Your task to perform on an android device: Go to Reddit.com Image 0: 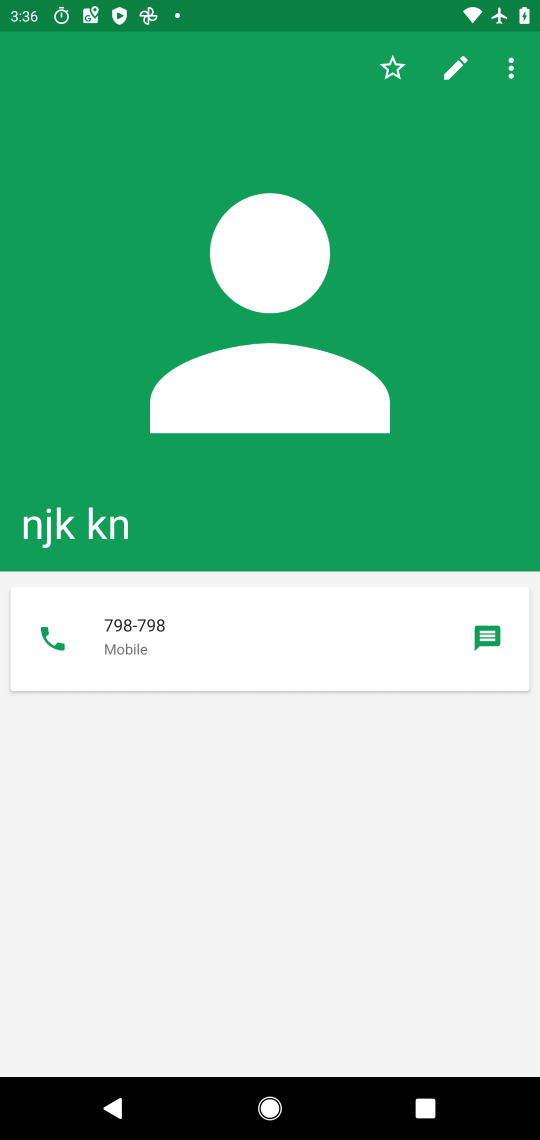
Step 0: press home button
Your task to perform on an android device: Go to Reddit.com Image 1: 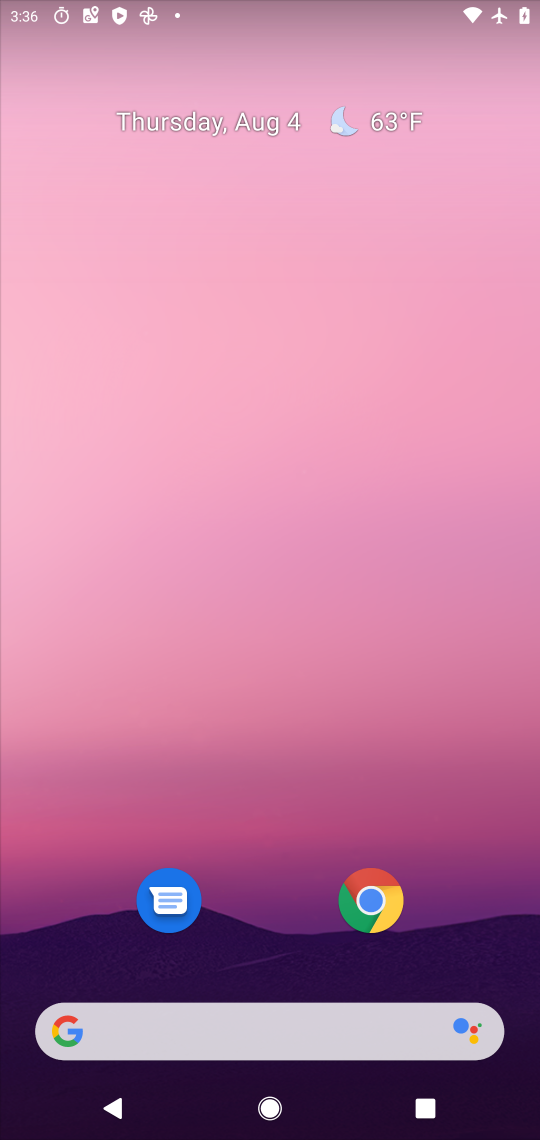
Step 1: click (375, 900)
Your task to perform on an android device: Go to Reddit.com Image 2: 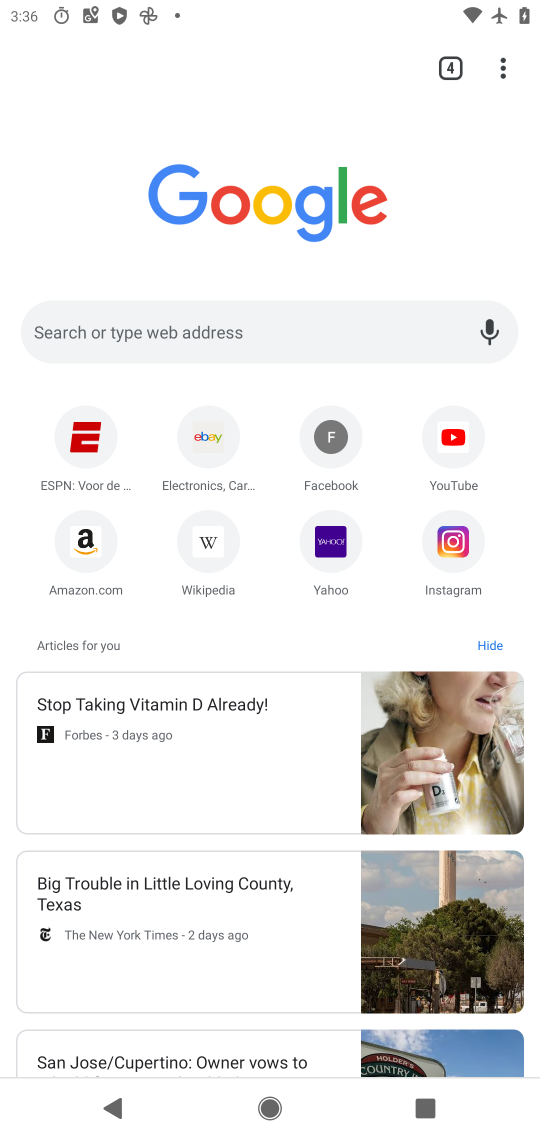
Step 2: click (291, 333)
Your task to perform on an android device: Go to Reddit.com Image 3: 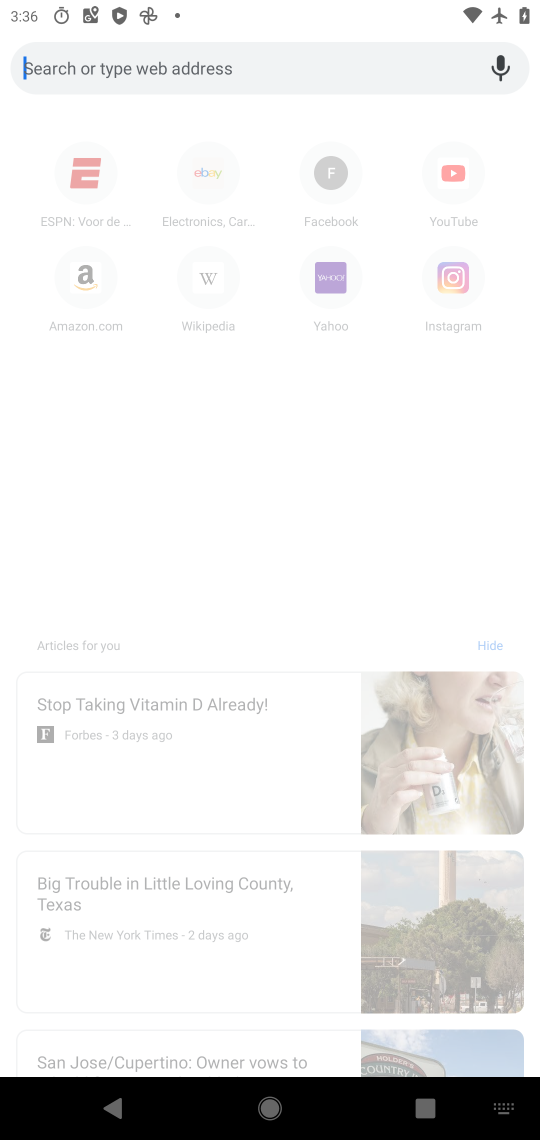
Step 3: type "Reddit.com"
Your task to perform on an android device: Go to Reddit.com Image 4: 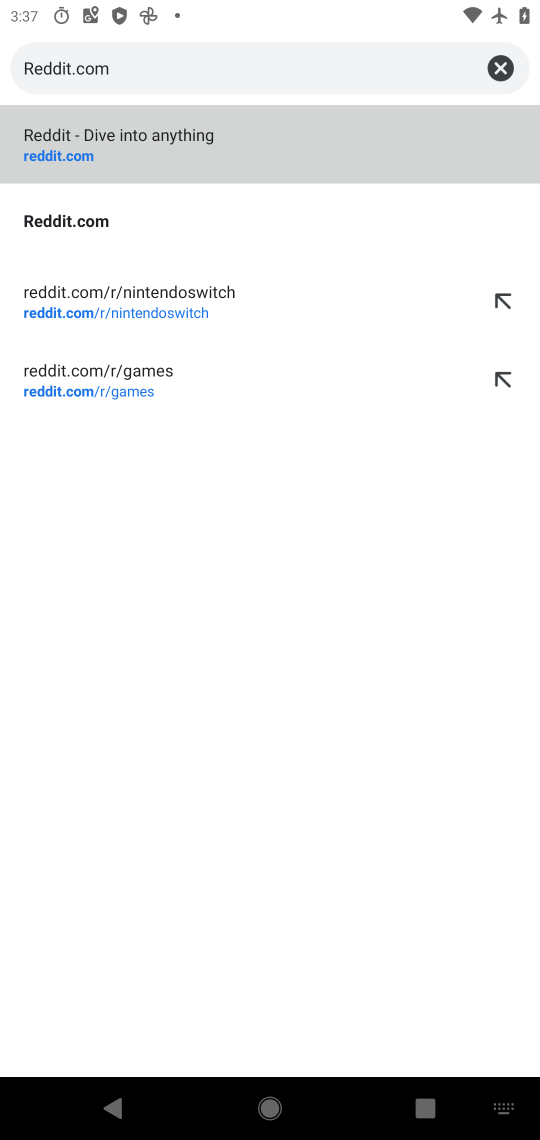
Step 4: click (71, 171)
Your task to perform on an android device: Go to Reddit.com Image 5: 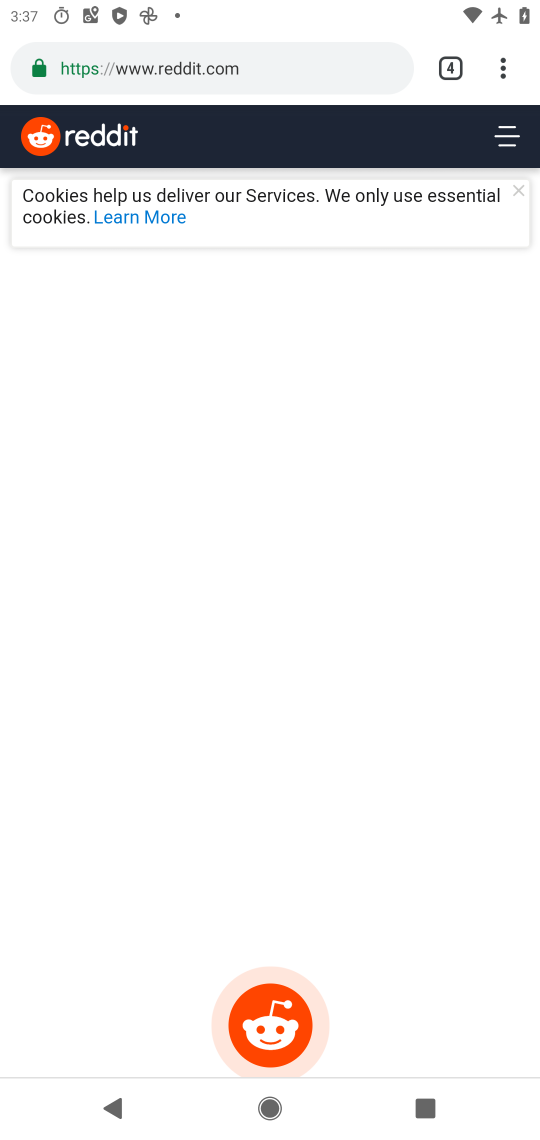
Step 5: task complete